Your task to perform on an android device: Go to internet settings Image 0: 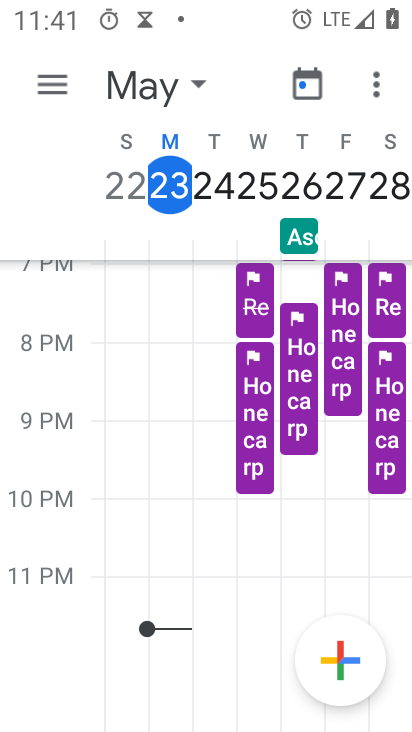
Step 0: press home button
Your task to perform on an android device: Go to internet settings Image 1: 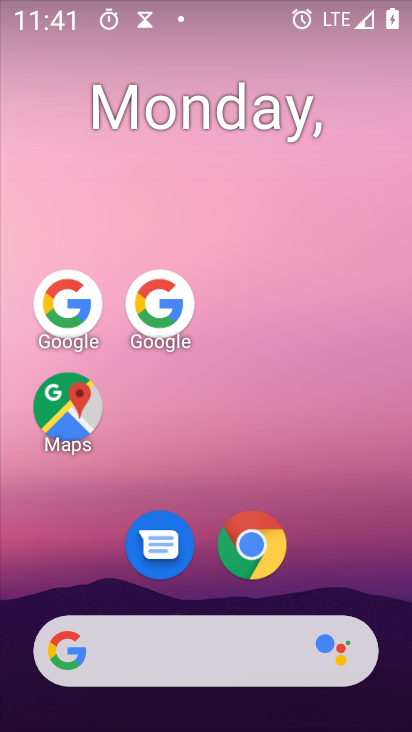
Step 1: drag from (209, 665) to (345, 79)
Your task to perform on an android device: Go to internet settings Image 2: 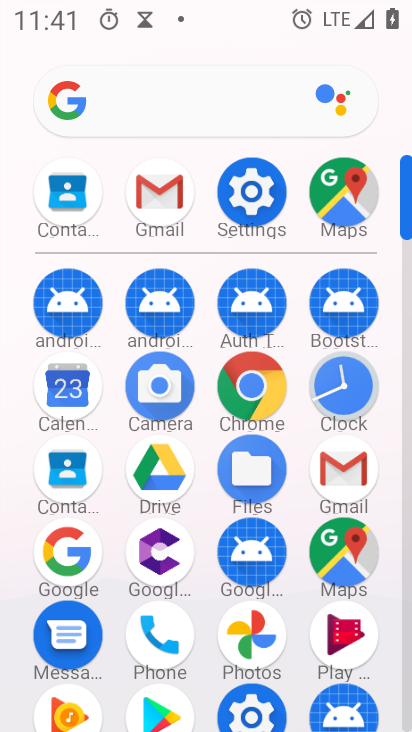
Step 2: click (260, 199)
Your task to perform on an android device: Go to internet settings Image 3: 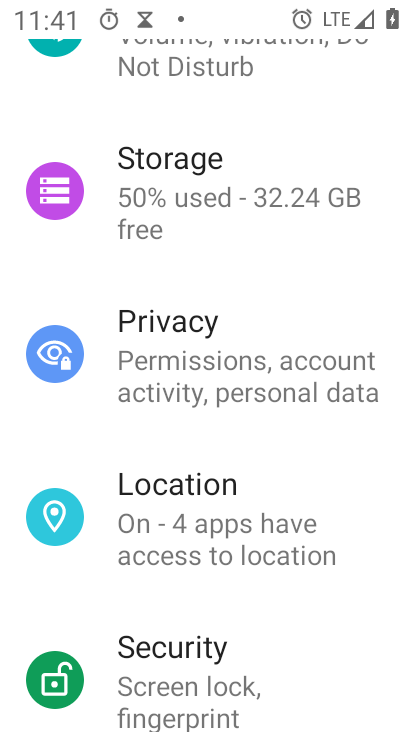
Step 3: drag from (277, 124) to (229, 683)
Your task to perform on an android device: Go to internet settings Image 4: 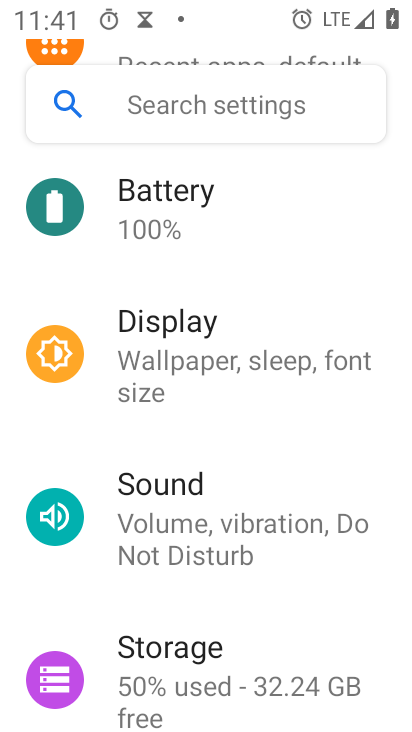
Step 4: drag from (259, 178) to (231, 604)
Your task to perform on an android device: Go to internet settings Image 5: 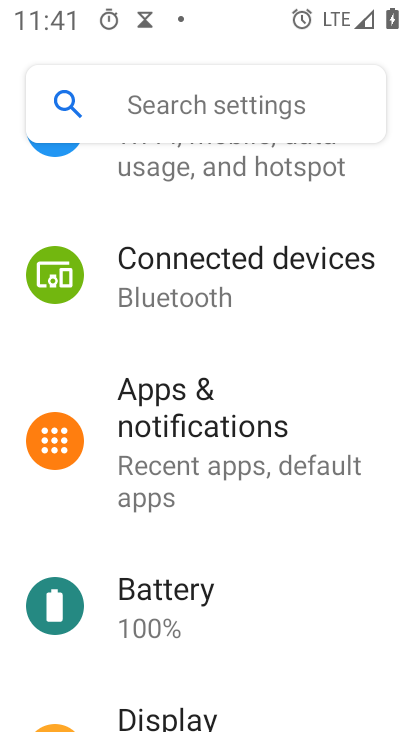
Step 5: drag from (295, 177) to (275, 619)
Your task to perform on an android device: Go to internet settings Image 6: 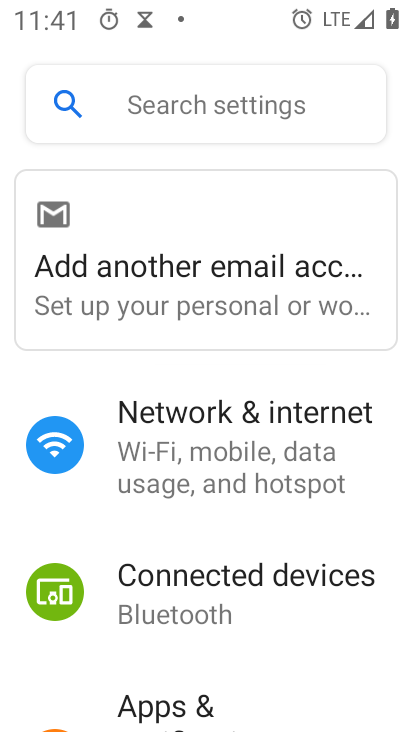
Step 6: click (287, 417)
Your task to perform on an android device: Go to internet settings Image 7: 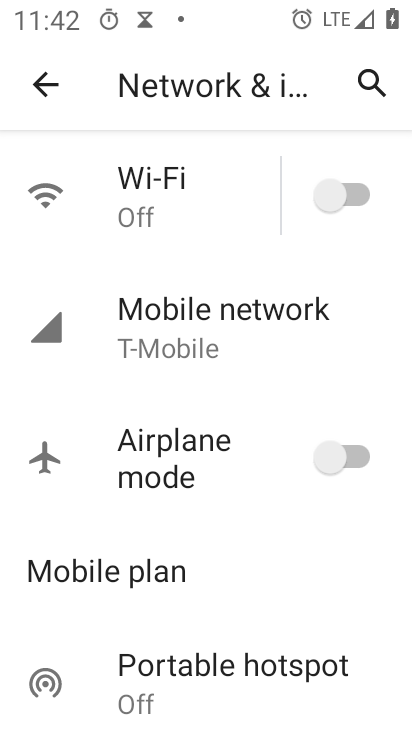
Step 7: task complete